Your task to perform on an android device: What is the recent news? Image 0: 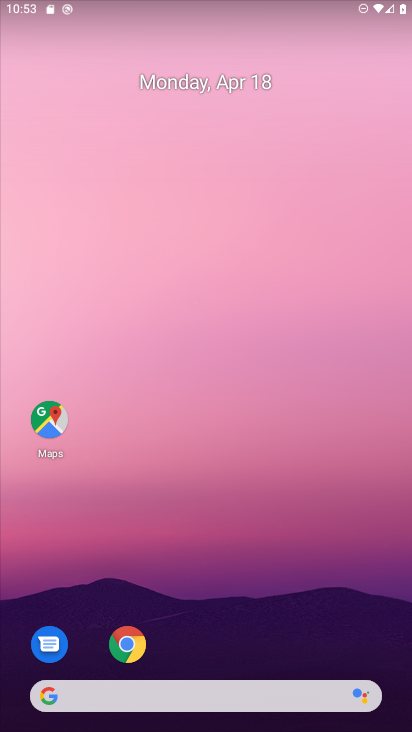
Step 0: click (181, 696)
Your task to perform on an android device: What is the recent news? Image 1: 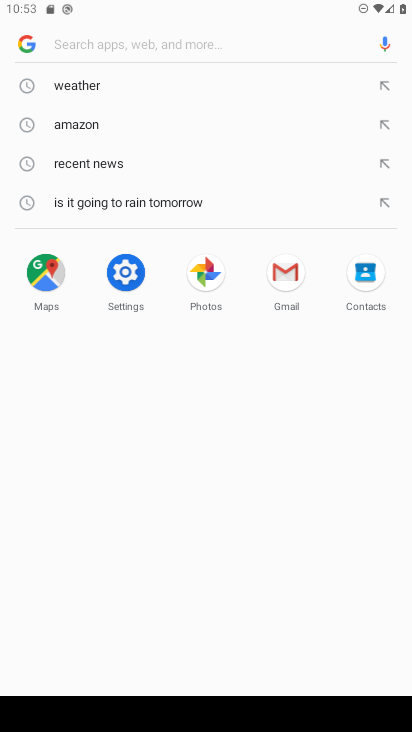
Step 1: type "recent news"
Your task to perform on an android device: What is the recent news? Image 2: 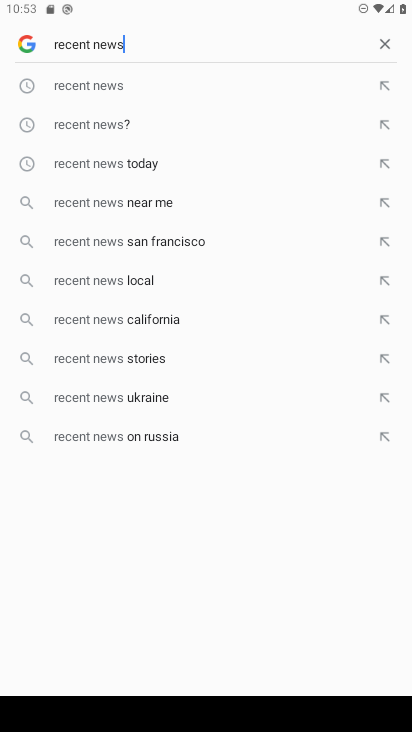
Step 2: click (110, 87)
Your task to perform on an android device: What is the recent news? Image 3: 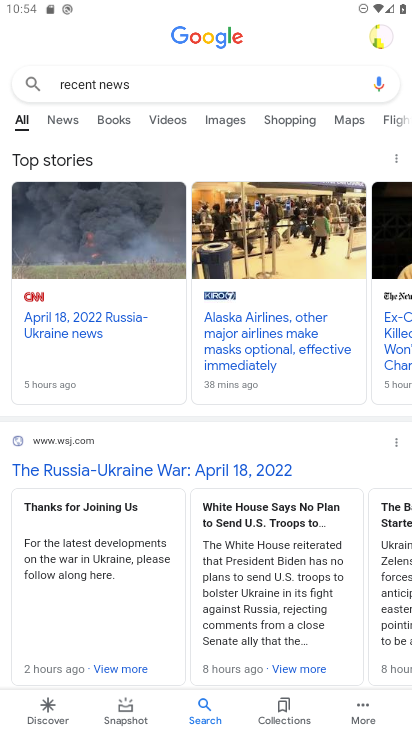
Step 3: task complete